Your task to perform on an android device: open a bookmark in the chrome app Image 0: 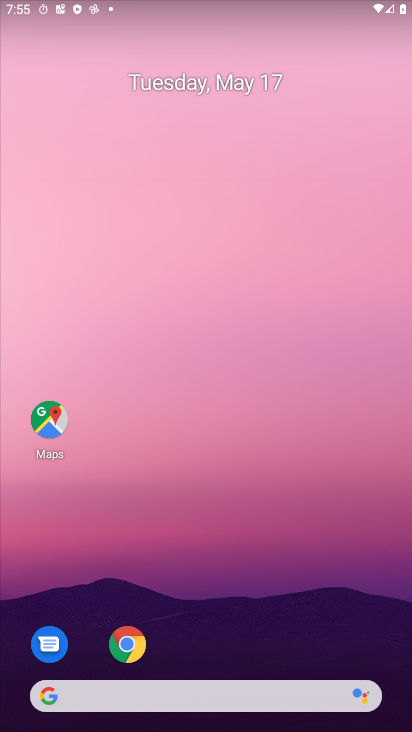
Step 0: drag from (309, 617) to (227, 72)
Your task to perform on an android device: open a bookmark in the chrome app Image 1: 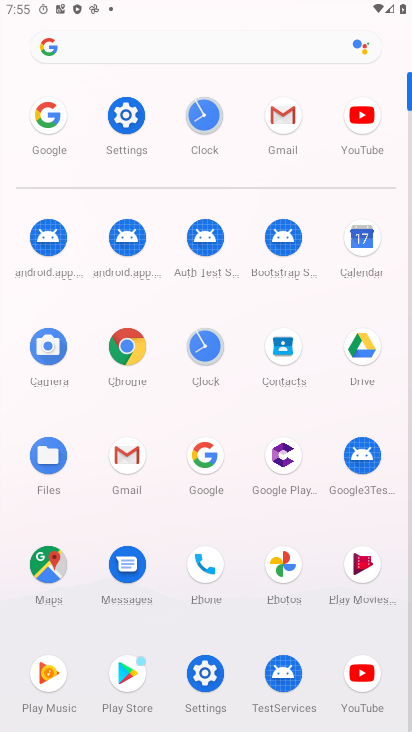
Step 1: click (136, 352)
Your task to perform on an android device: open a bookmark in the chrome app Image 2: 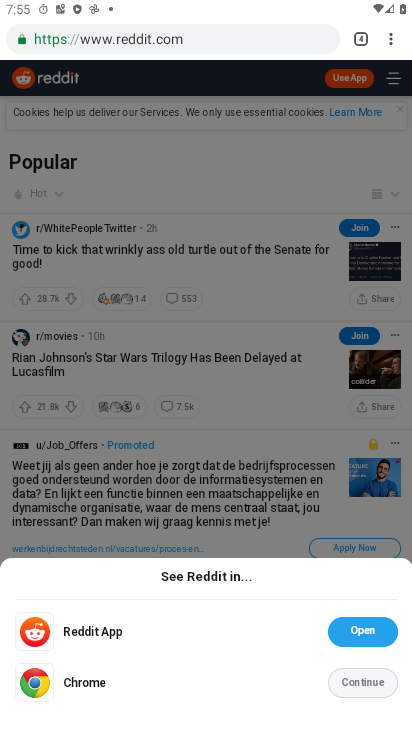
Step 2: press back button
Your task to perform on an android device: open a bookmark in the chrome app Image 3: 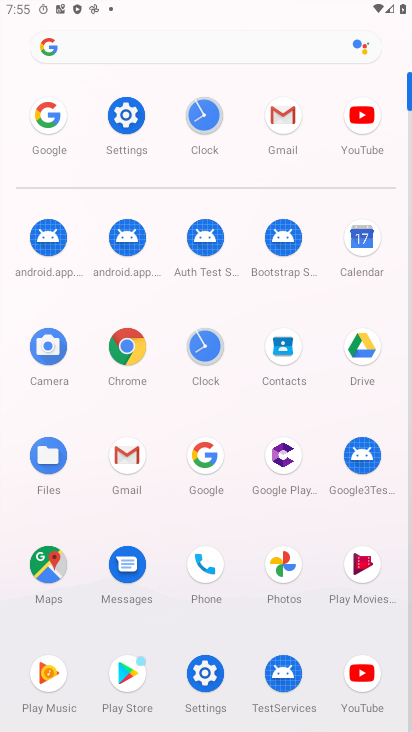
Step 3: click (118, 354)
Your task to perform on an android device: open a bookmark in the chrome app Image 4: 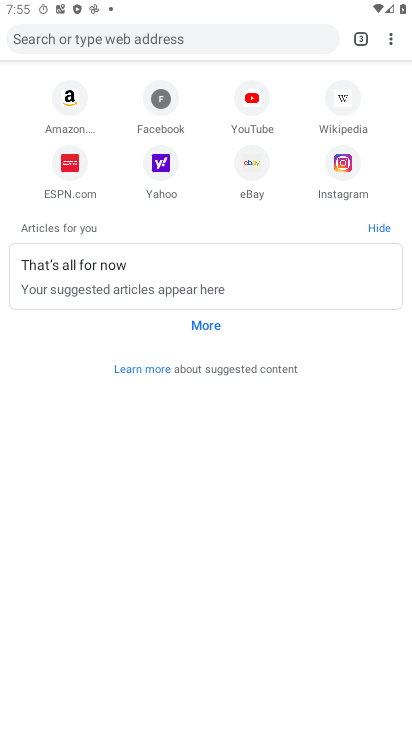
Step 4: click (392, 37)
Your task to perform on an android device: open a bookmark in the chrome app Image 5: 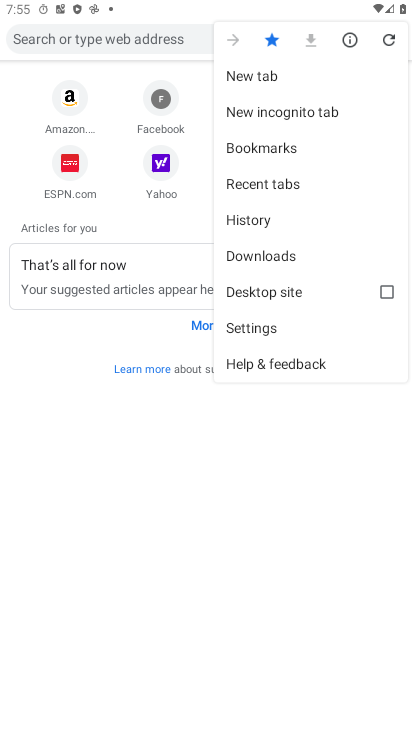
Step 5: click (277, 147)
Your task to perform on an android device: open a bookmark in the chrome app Image 6: 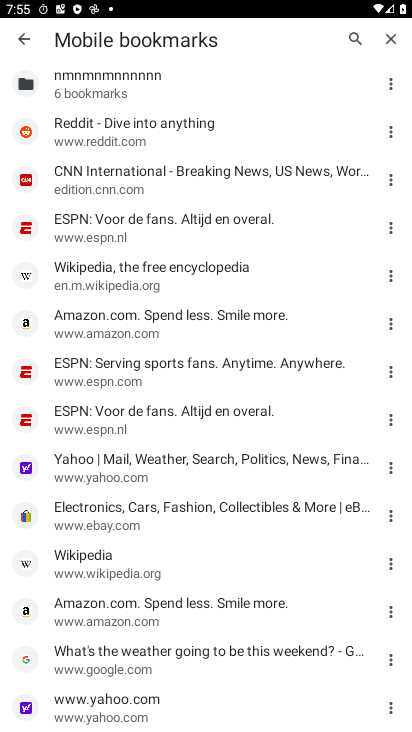
Step 6: task complete